Your task to perform on an android device: Search for pizza restaurants on Maps Image 0: 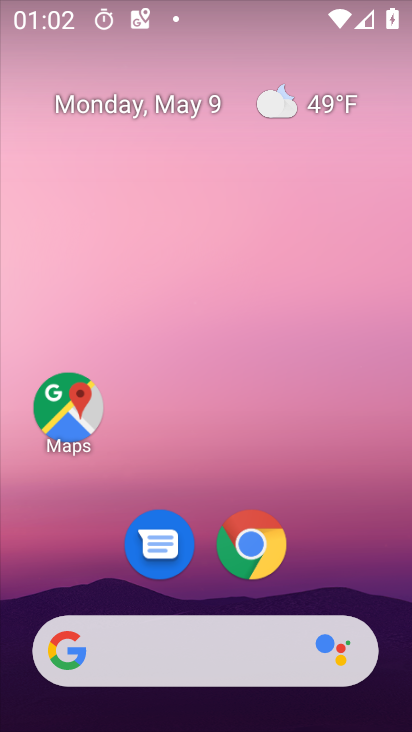
Step 0: drag from (335, 566) to (405, 569)
Your task to perform on an android device: Search for pizza restaurants on Maps Image 1: 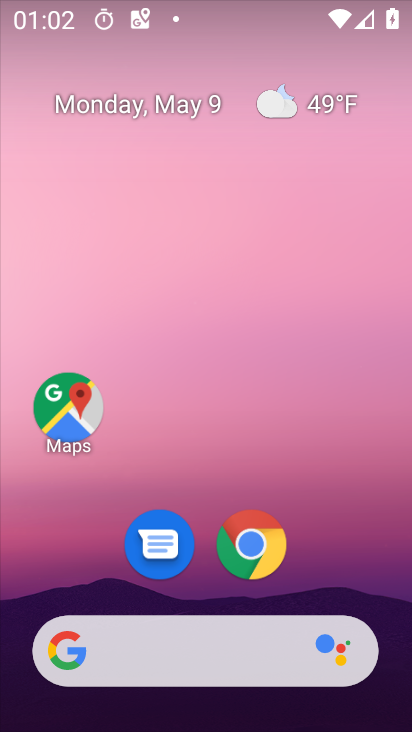
Step 1: drag from (281, 550) to (410, 639)
Your task to perform on an android device: Search for pizza restaurants on Maps Image 2: 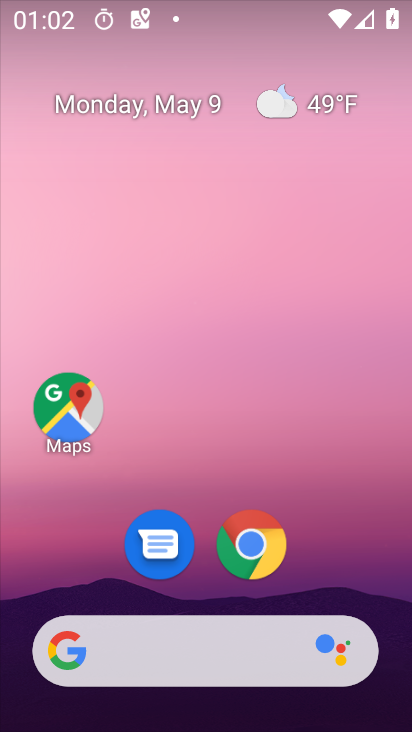
Step 2: drag from (338, 593) to (411, 585)
Your task to perform on an android device: Search for pizza restaurants on Maps Image 3: 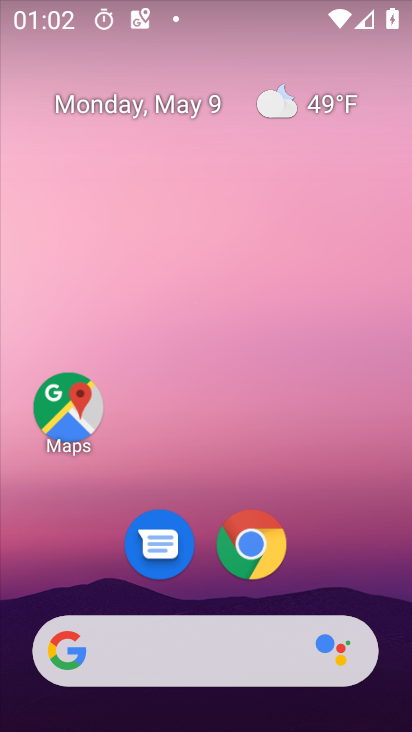
Step 3: drag from (330, 615) to (287, 110)
Your task to perform on an android device: Search for pizza restaurants on Maps Image 4: 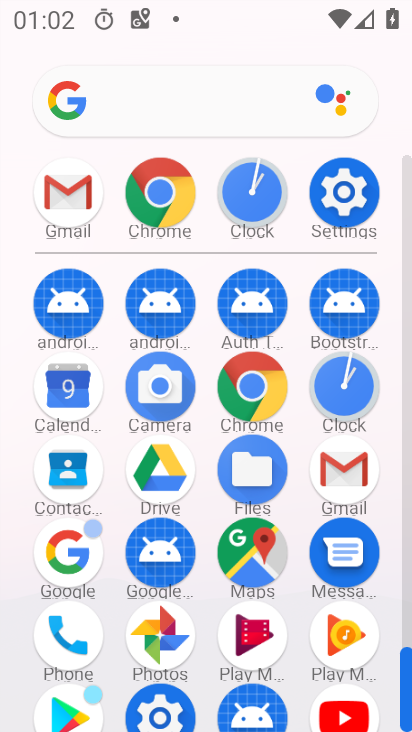
Step 4: click (254, 583)
Your task to perform on an android device: Search for pizza restaurants on Maps Image 5: 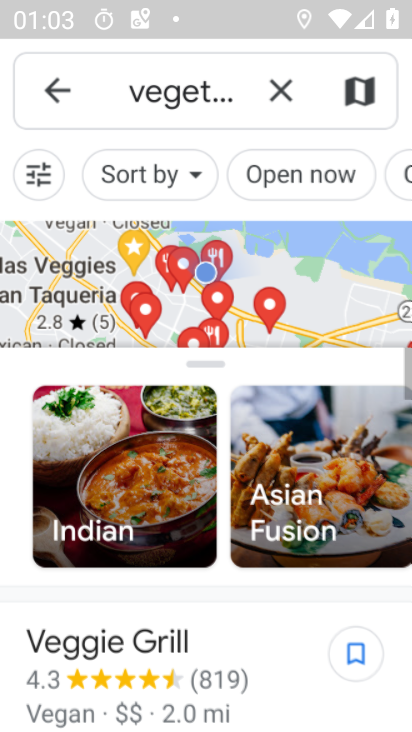
Step 5: click (277, 98)
Your task to perform on an android device: Search for pizza restaurants on Maps Image 6: 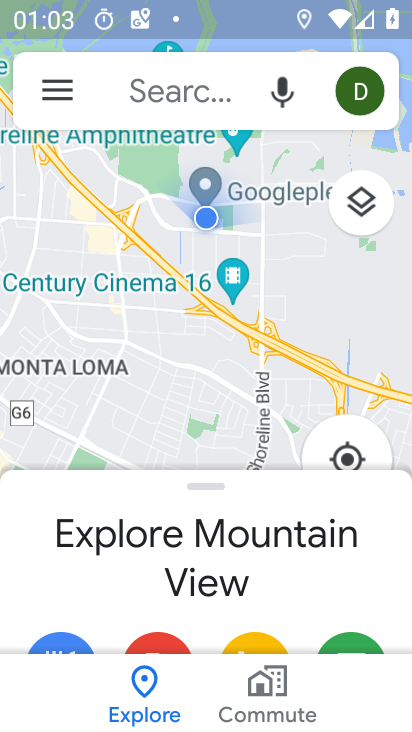
Step 6: click (222, 88)
Your task to perform on an android device: Search for pizza restaurants on Maps Image 7: 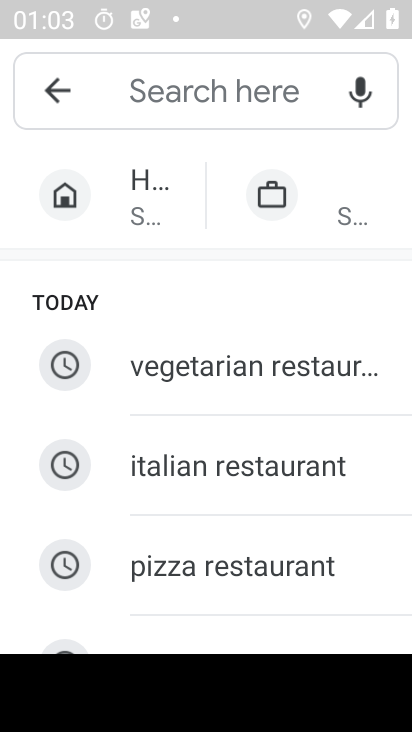
Step 7: click (311, 551)
Your task to perform on an android device: Search for pizza restaurants on Maps Image 8: 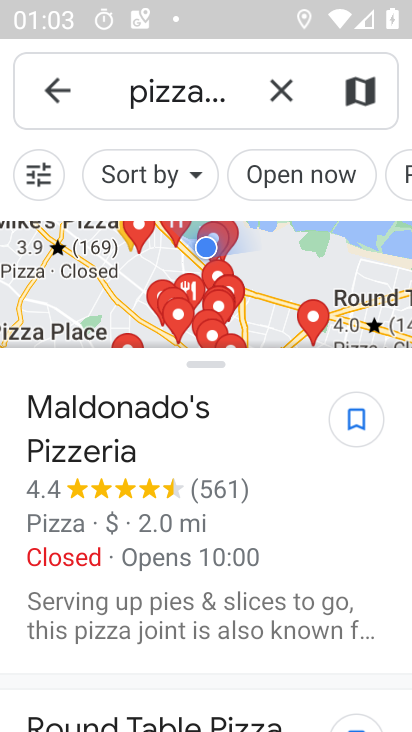
Step 8: task complete